Your task to perform on an android device: Go to Google maps Image 0: 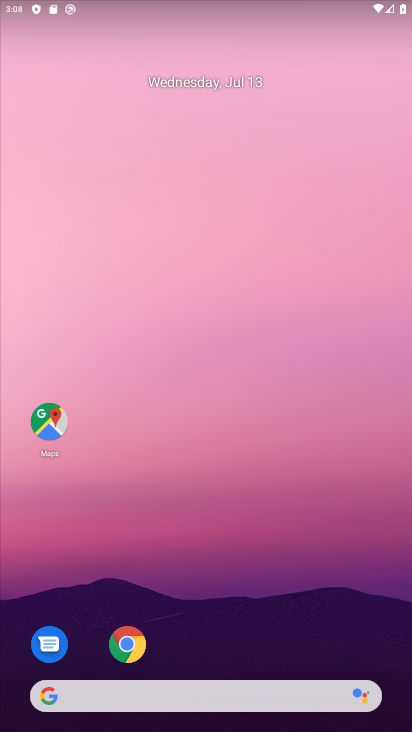
Step 0: click (51, 419)
Your task to perform on an android device: Go to Google maps Image 1: 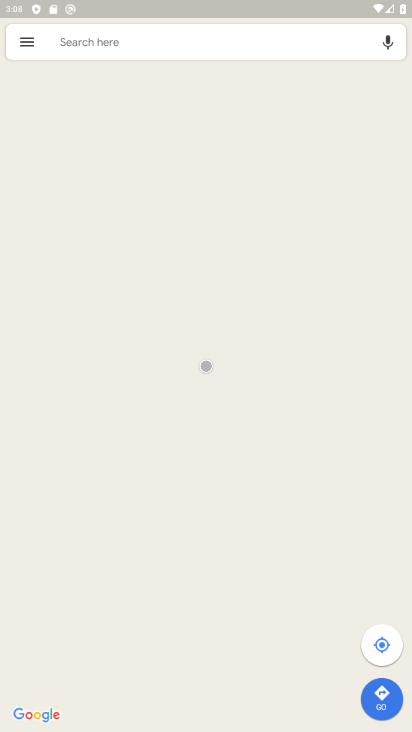
Step 1: task complete